Your task to perform on an android device: toggle notification dots Image 0: 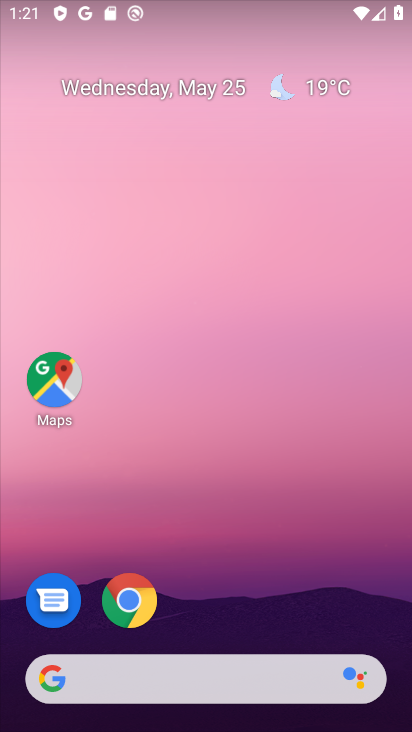
Step 0: drag from (181, 632) to (257, 252)
Your task to perform on an android device: toggle notification dots Image 1: 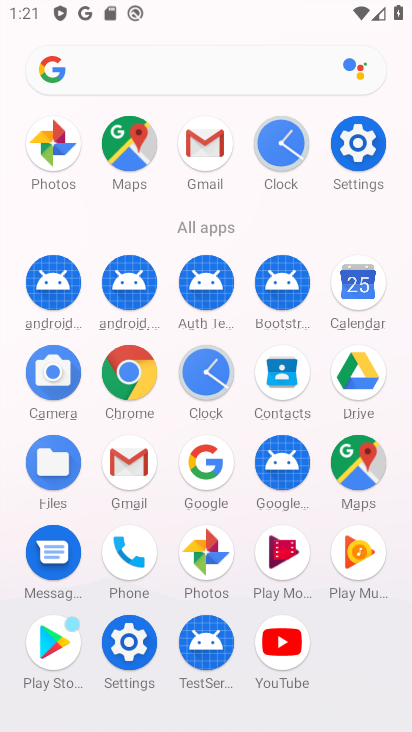
Step 1: click (130, 665)
Your task to perform on an android device: toggle notification dots Image 2: 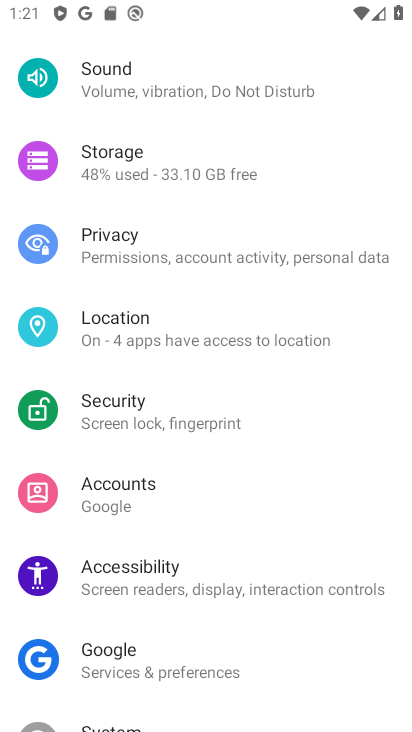
Step 2: drag from (183, 153) to (181, 555)
Your task to perform on an android device: toggle notification dots Image 3: 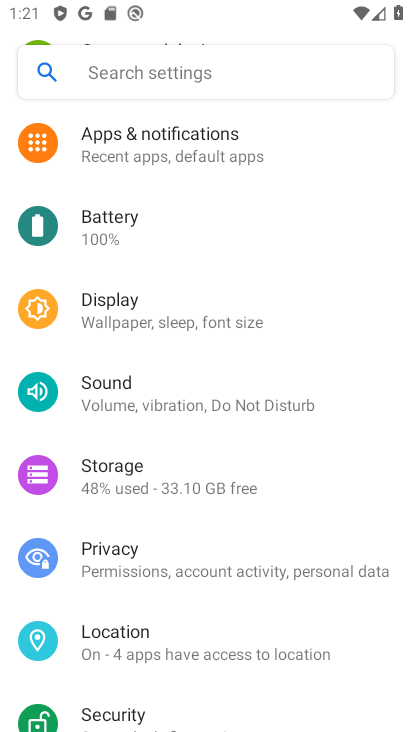
Step 3: click (192, 164)
Your task to perform on an android device: toggle notification dots Image 4: 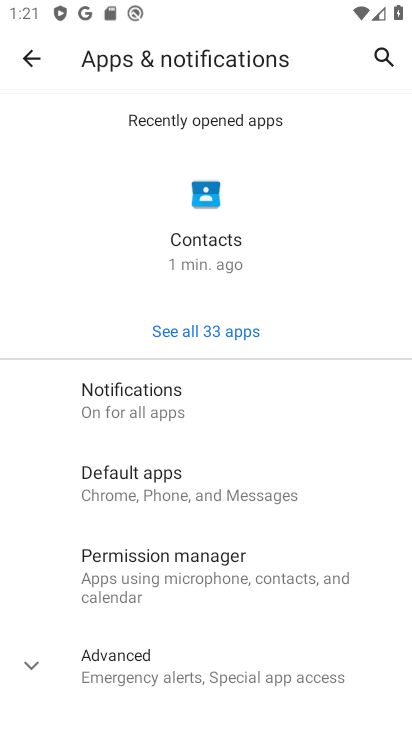
Step 4: click (171, 410)
Your task to perform on an android device: toggle notification dots Image 5: 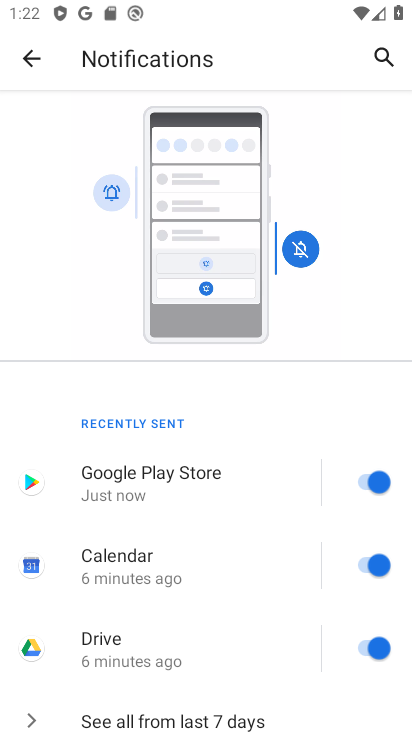
Step 5: drag from (158, 631) to (261, 188)
Your task to perform on an android device: toggle notification dots Image 6: 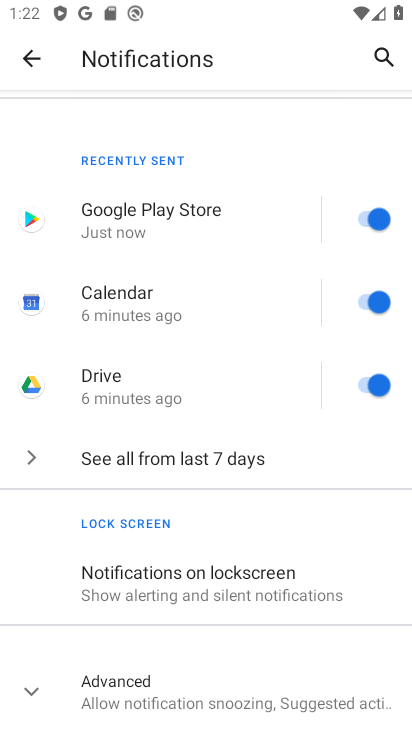
Step 6: click (181, 686)
Your task to perform on an android device: toggle notification dots Image 7: 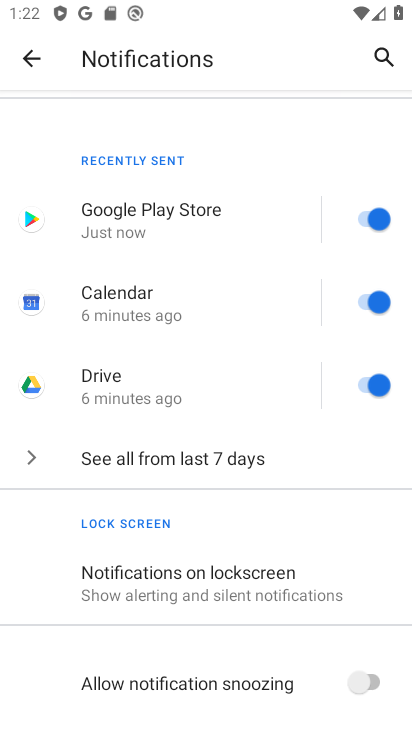
Step 7: drag from (102, 693) to (181, 386)
Your task to perform on an android device: toggle notification dots Image 8: 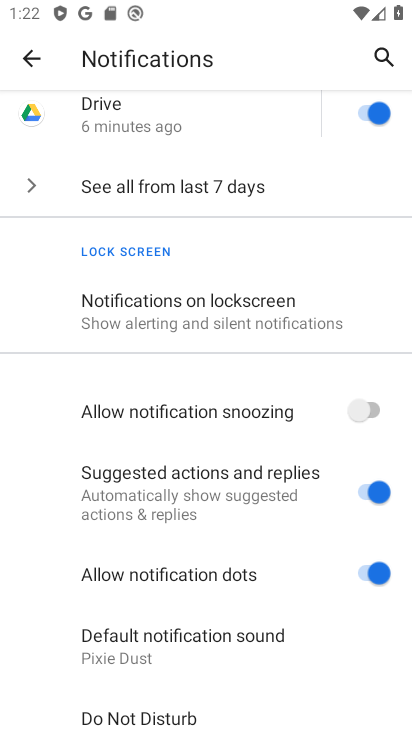
Step 8: click (357, 563)
Your task to perform on an android device: toggle notification dots Image 9: 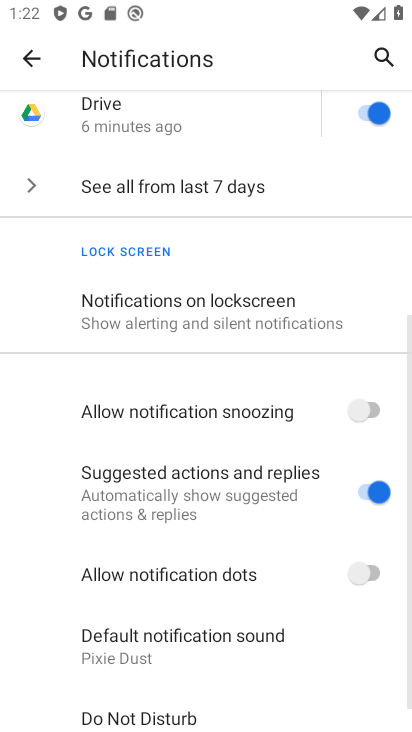
Step 9: task complete